Your task to perform on an android device: add a contact Image 0: 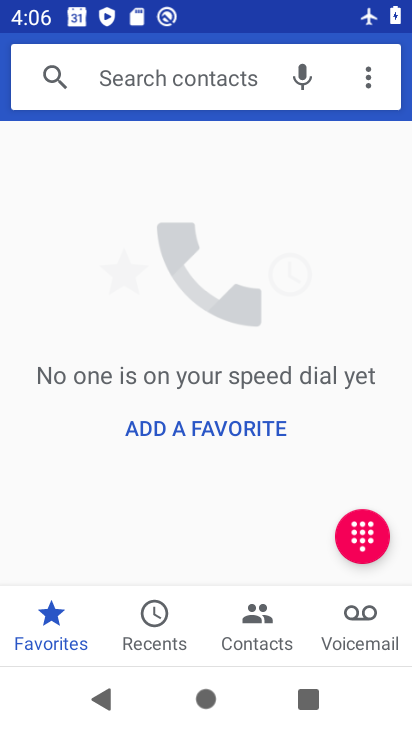
Step 0: click (250, 610)
Your task to perform on an android device: add a contact Image 1: 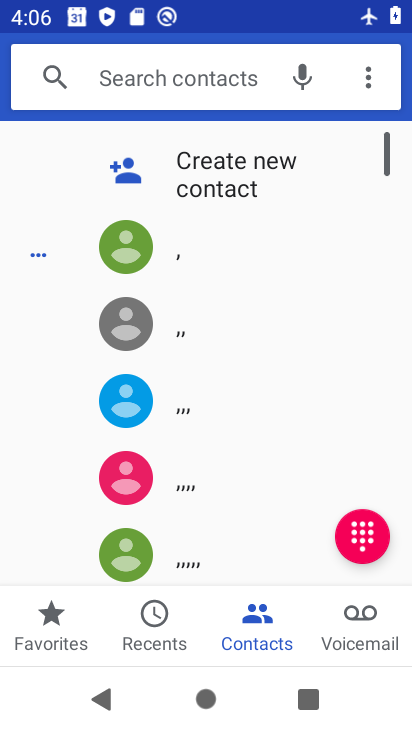
Step 1: click (224, 141)
Your task to perform on an android device: add a contact Image 2: 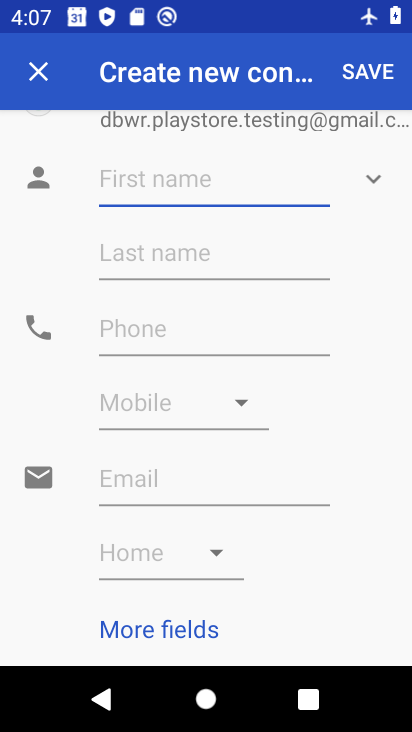
Step 2: type "DM<NM<"
Your task to perform on an android device: add a contact Image 3: 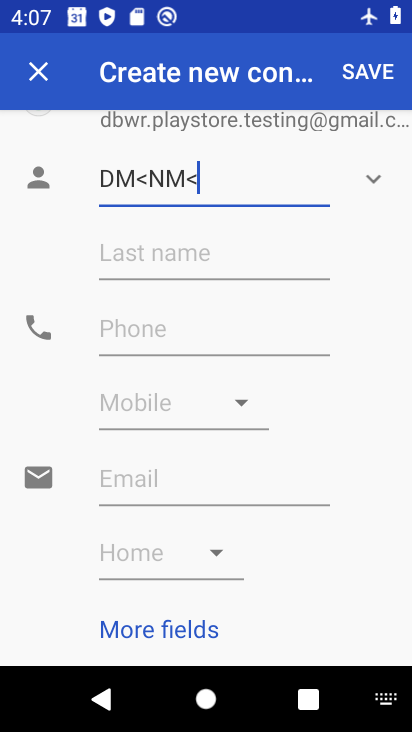
Step 3: type ""
Your task to perform on an android device: add a contact Image 4: 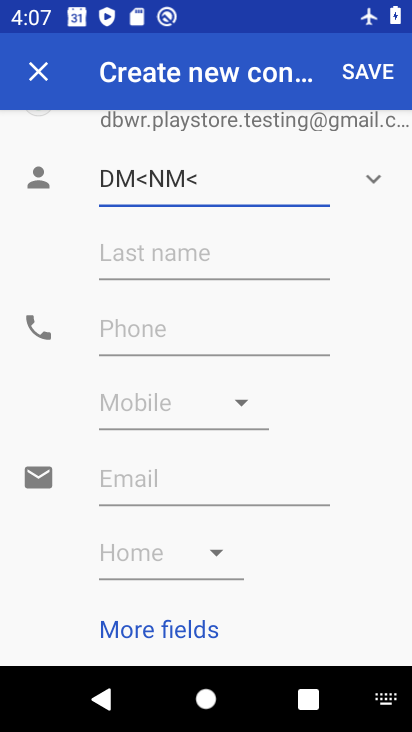
Step 4: click (195, 332)
Your task to perform on an android device: add a contact Image 5: 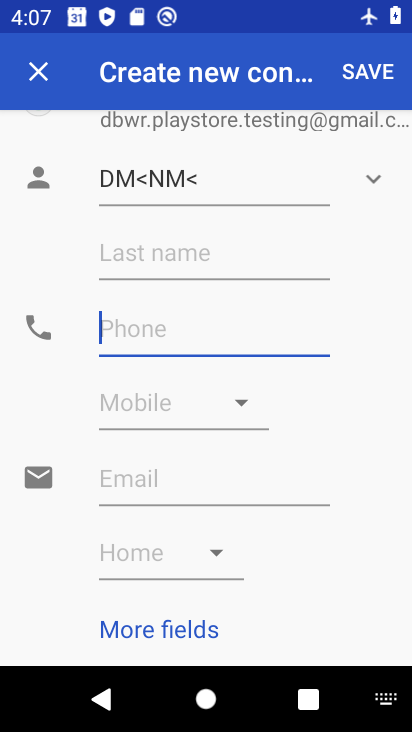
Step 5: type "345675456789"
Your task to perform on an android device: add a contact Image 6: 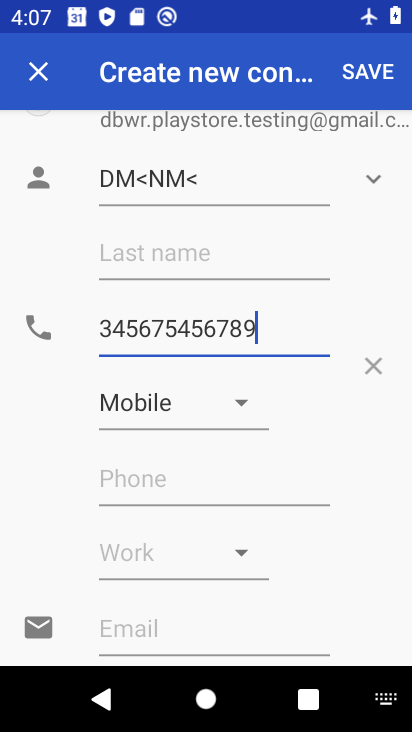
Step 6: type ""
Your task to perform on an android device: add a contact Image 7: 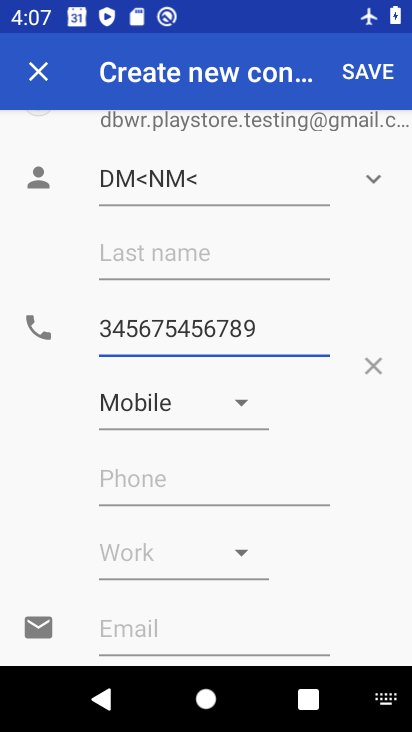
Step 7: click (359, 58)
Your task to perform on an android device: add a contact Image 8: 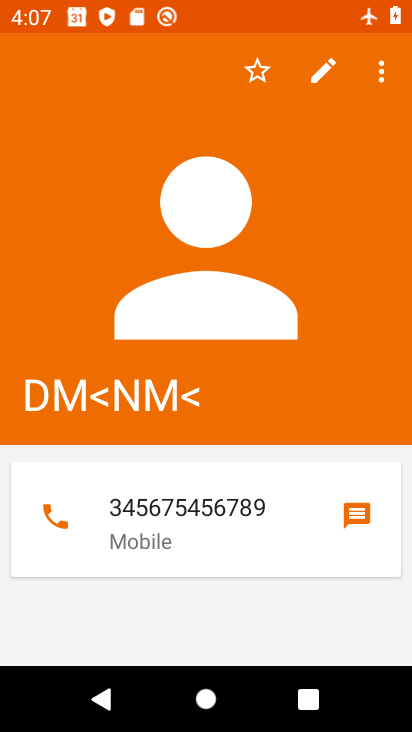
Step 8: task complete